Your task to perform on an android device: When is my next appointment? Image 0: 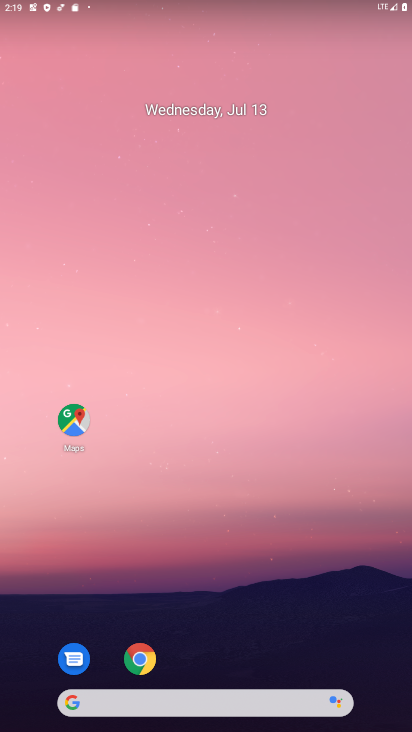
Step 0: drag from (349, 637) to (319, 337)
Your task to perform on an android device: When is my next appointment? Image 1: 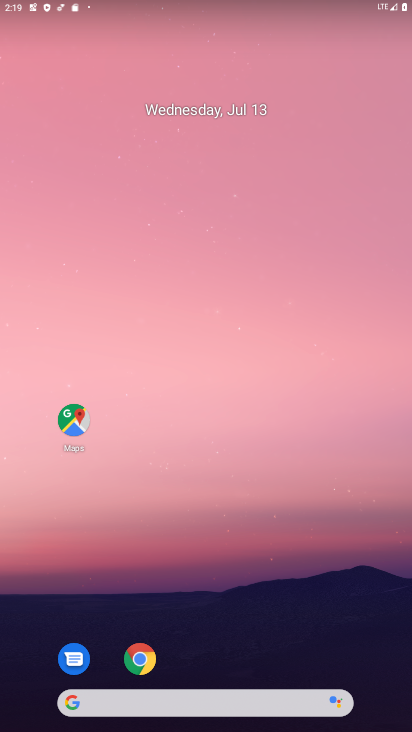
Step 1: drag from (369, 670) to (303, 12)
Your task to perform on an android device: When is my next appointment? Image 2: 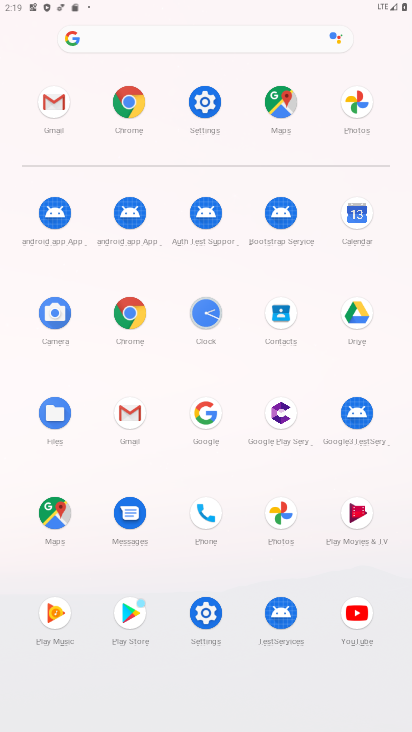
Step 2: click (358, 215)
Your task to perform on an android device: When is my next appointment? Image 3: 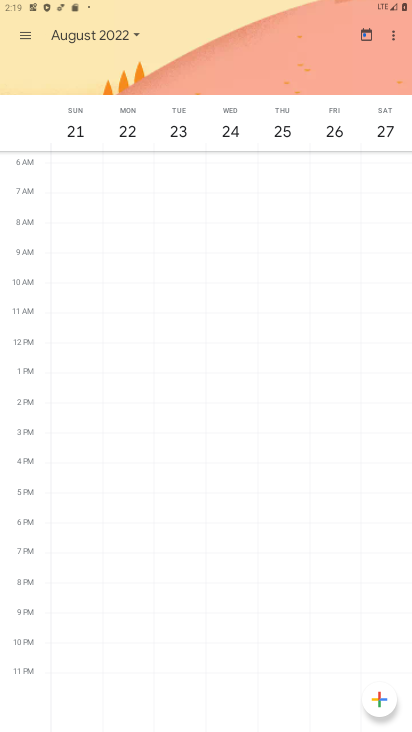
Step 3: click (25, 36)
Your task to perform on an android device: When is my next appointment? Image 4: 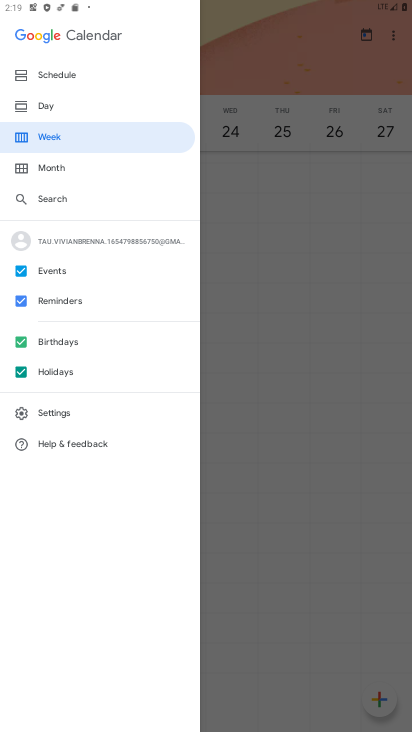
Step 4: click (25, 36)
Your task to perform on an android device: When is my next appointment? Image 5: 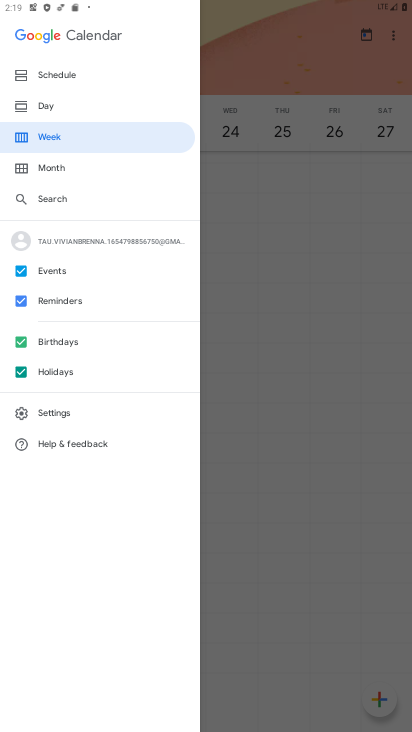
Step 5: click (25, 36)
Your task to perform on an android device: When is my next appointment? Image 6: 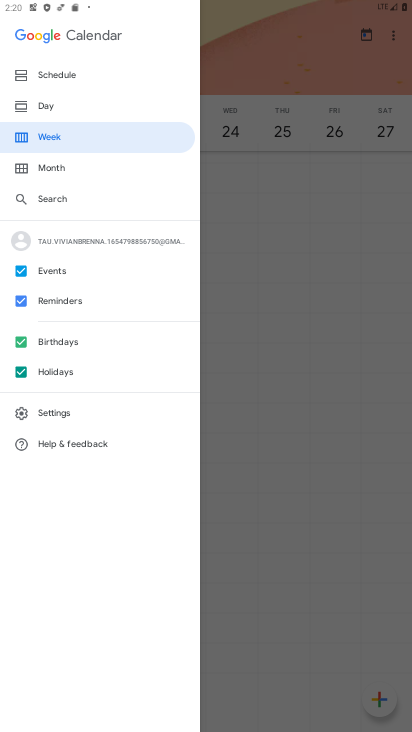
Step 6: click (69, 75)
Your task to perform on an android device: When is my next appointment? Image 7: 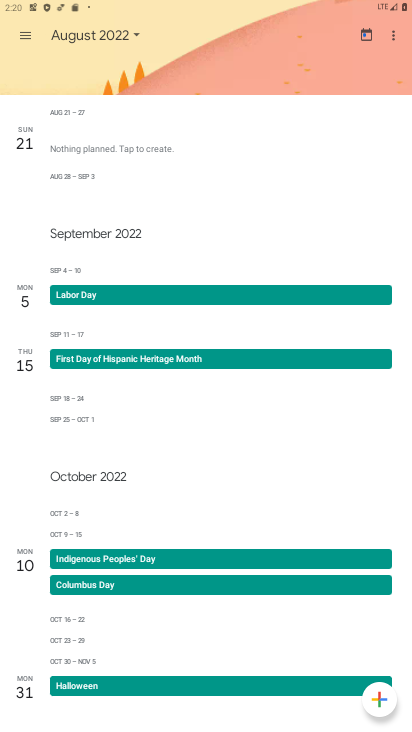
Step 7: task complete